Your task to perform on an android device: Open calendar and show me the second week of next month Image 0: 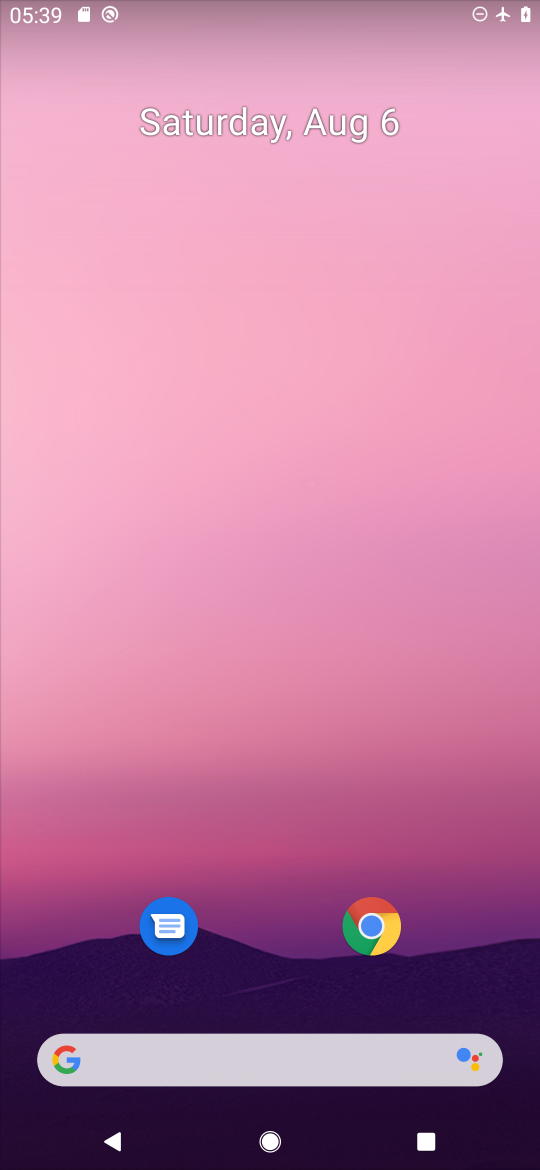
Step 0: drag from (319, 526) to (324, 281)
Your task to perform on an android device: Open calendar and show me the second week of next month Image 1: 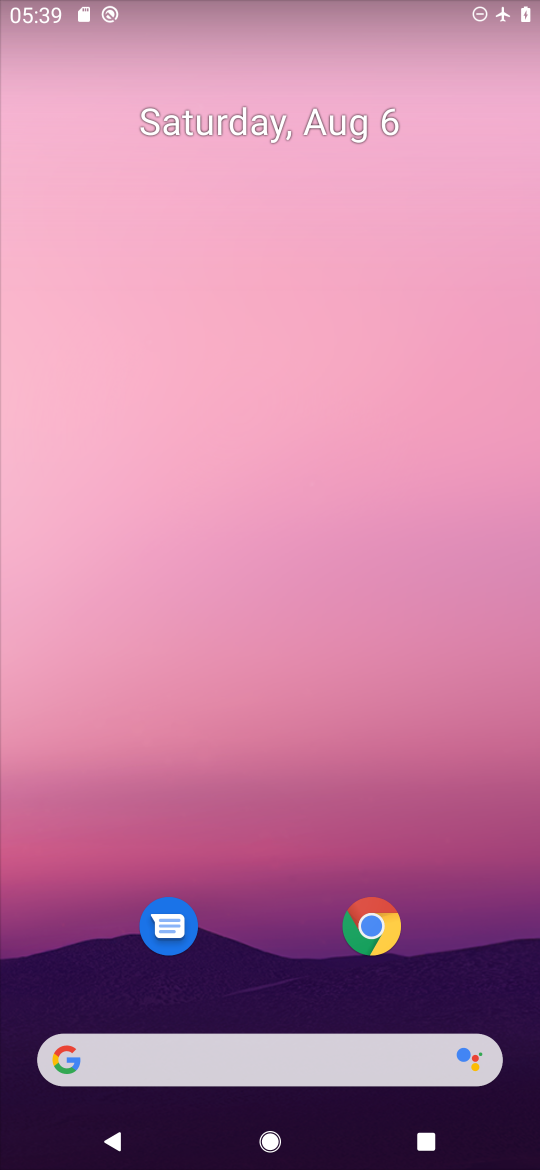
Step 1: drag from (271, 920) to (299, 259)
Your task to perform on an android device: Open calendar and show me the second week of next month Image 2: 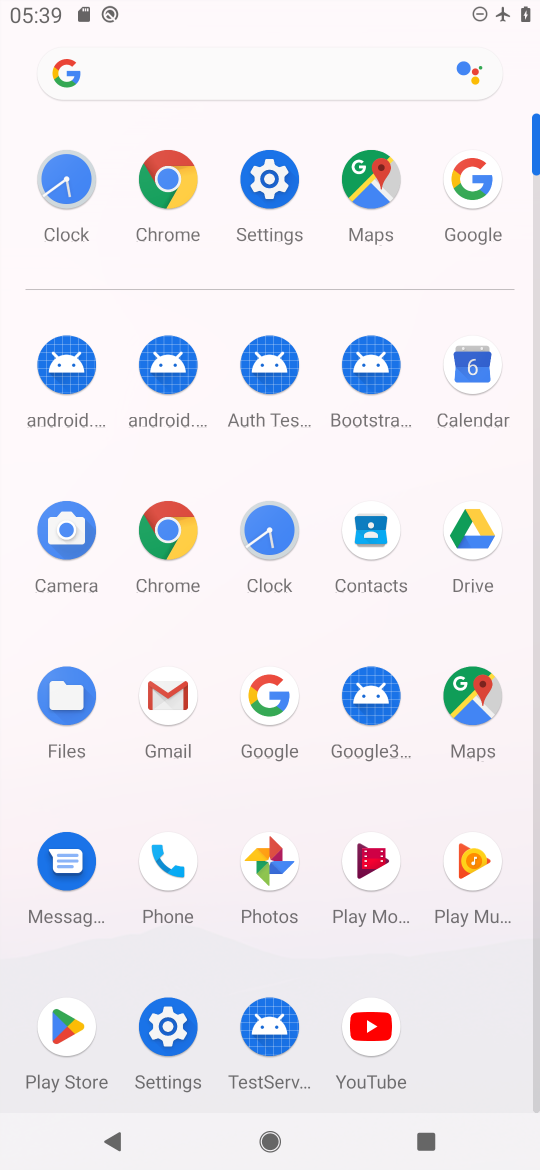
Step 2: click (492, 372)
Your task to perform on an android device: Open calendar and show me the second week of next month Image 3: 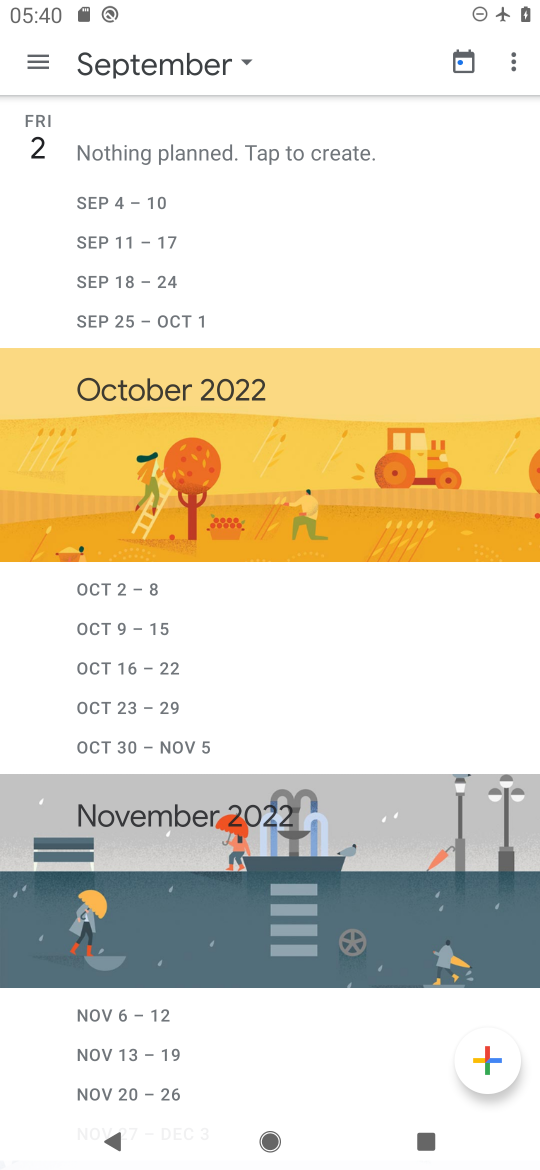
Step 3: click (213, 67)
Your task to perform on an android device: Open calendar and show me the second week of next month Image 4: 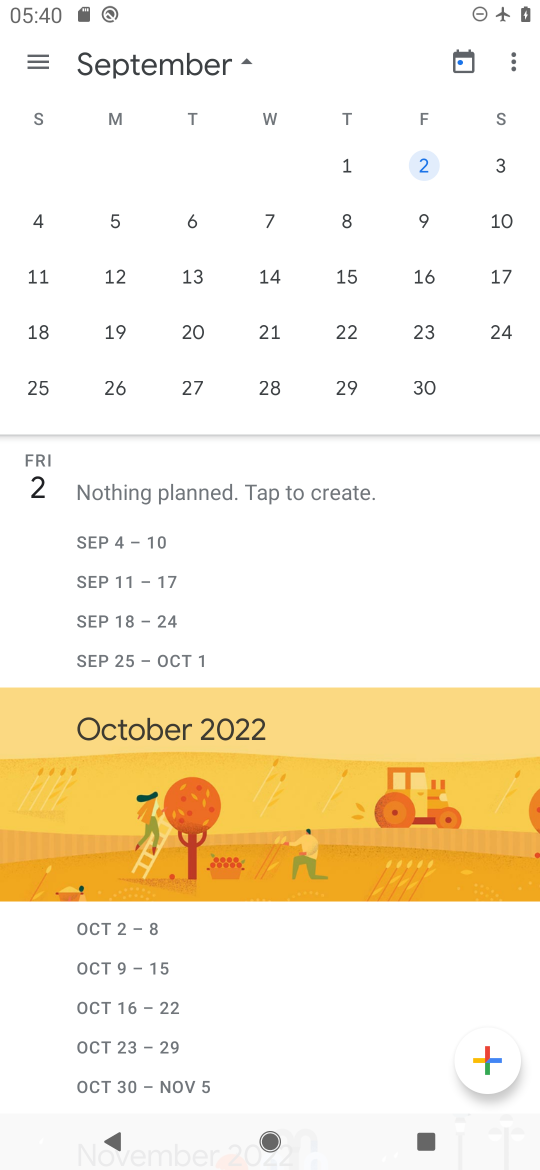
Step 4: click (30, 205)
Your task to perform on an android device: Open calendar and show me the second week of next month Image 5: 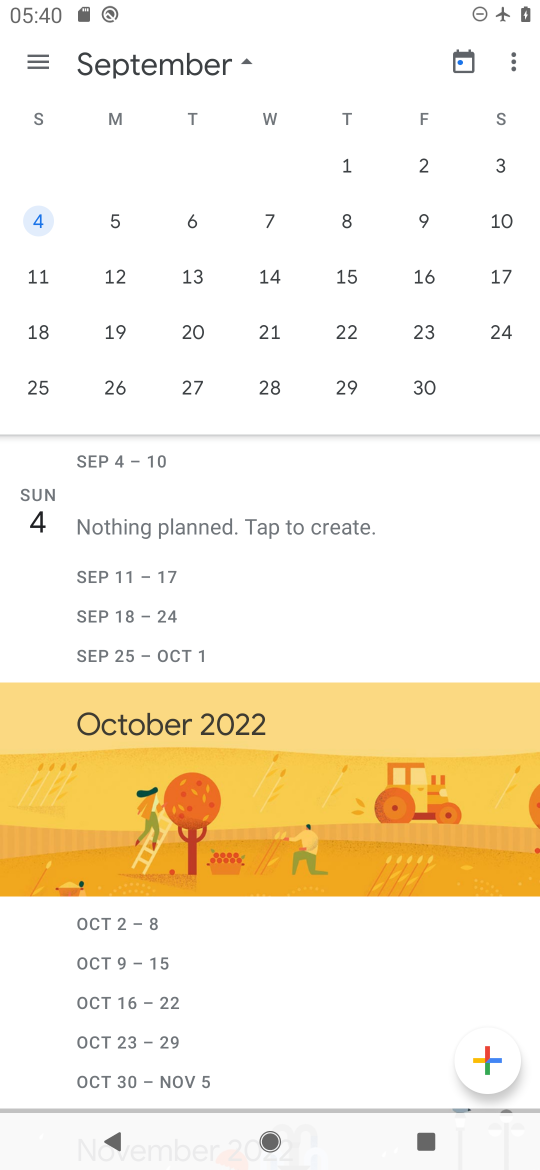
Step 5: task complete